Your task to perform on an android device: Open Yahoo.com Image 0: 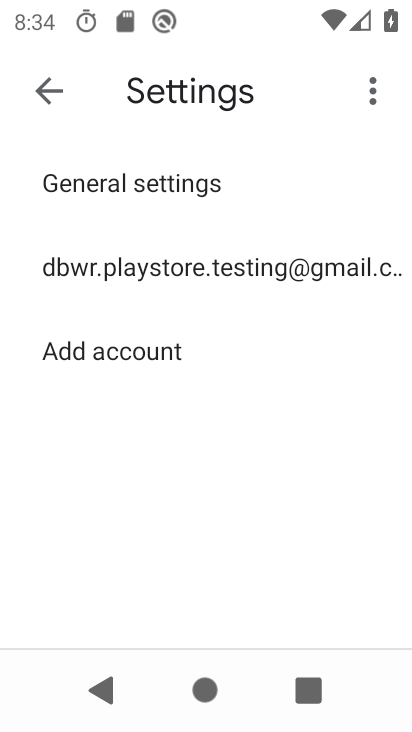
Step 0: press home button
Your task to perform on an android device: Open Yahoo.com Image 1: 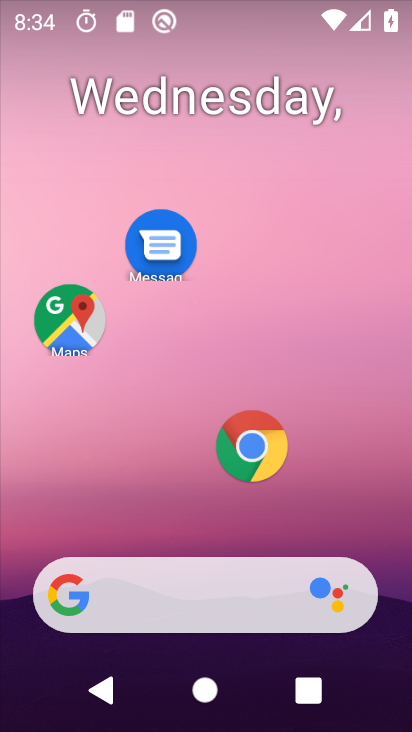
Step 1: click (252, 439)
Your task to perform on an android device: Open Yahoo.com Image 2: 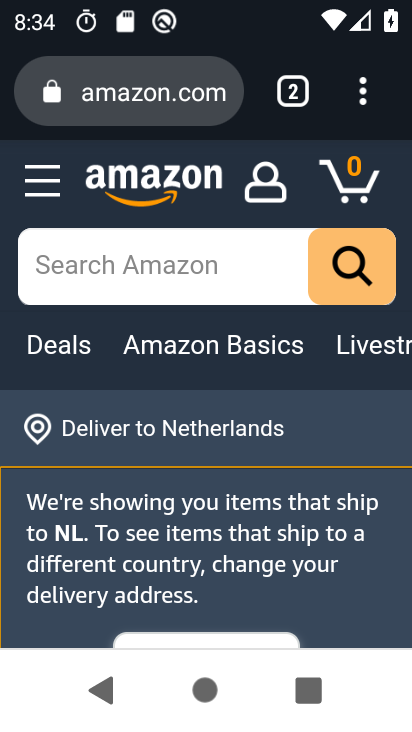
Step 2: click (292, 90)
Your task to perform on an android device: Open Yahoo.com Image 3: 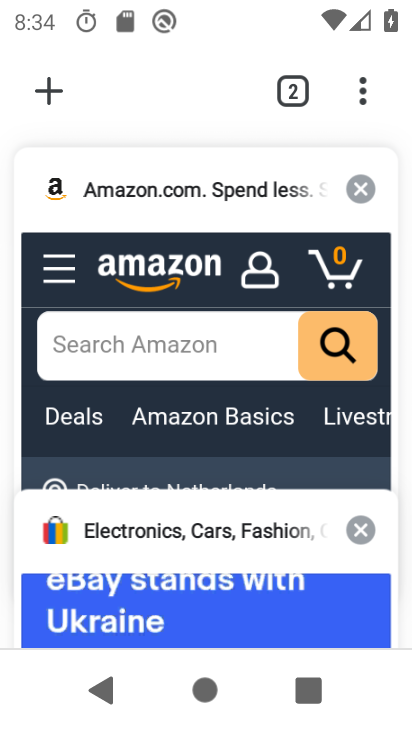
Step 3: click (359, 183)
Your task to perform on an android device: Open Yahoo.com Image 4: 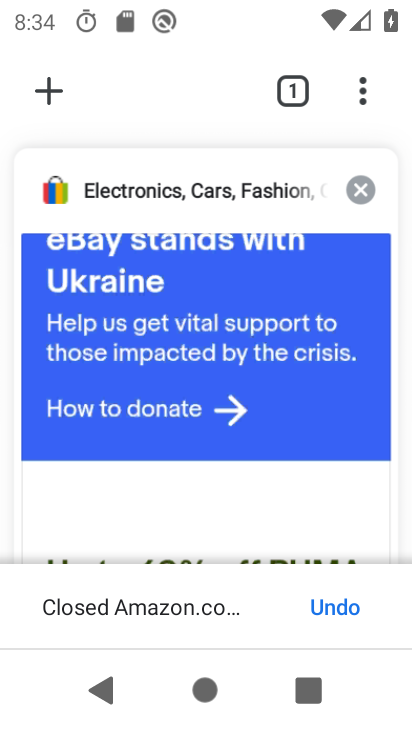
Step 4: click (359, 183)
Your task to perform on an android device: Open Yahoo.com Image 5: 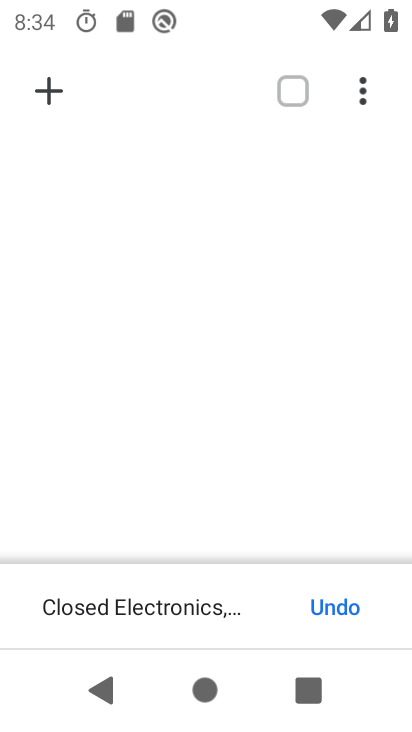
Step 5: click (54, 94)
Your task to perform on an android device: Open Yahoo.com Image 6: 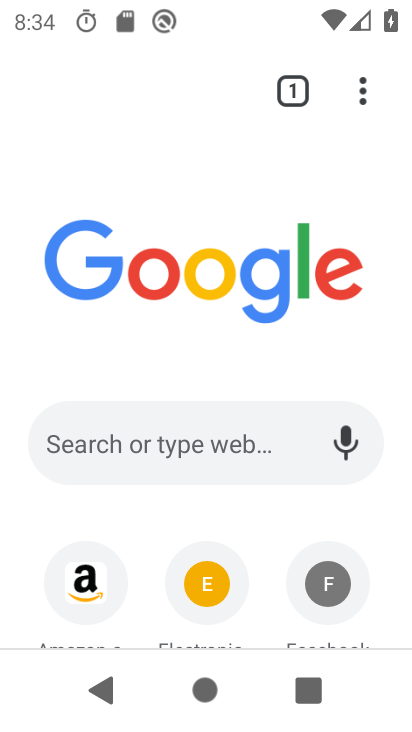
Step 6: drag from (265, 525) to (261, 59)
Your task to perform on an android device: Open Yahoo.com Image 7: 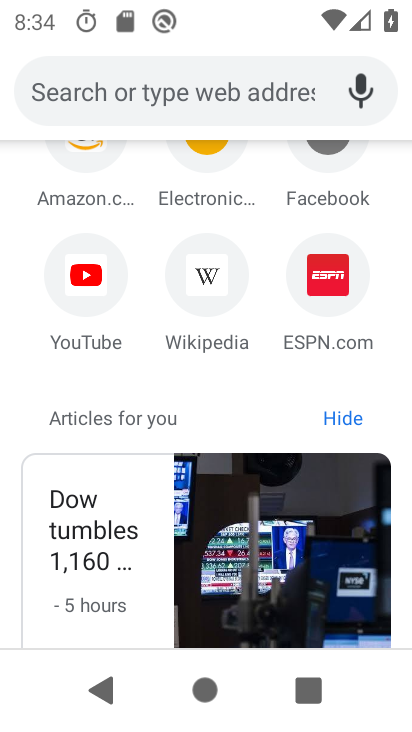
Step 7: click (83, 268)
Your task to perform on an android device: Open Yahoo.com Image 8: 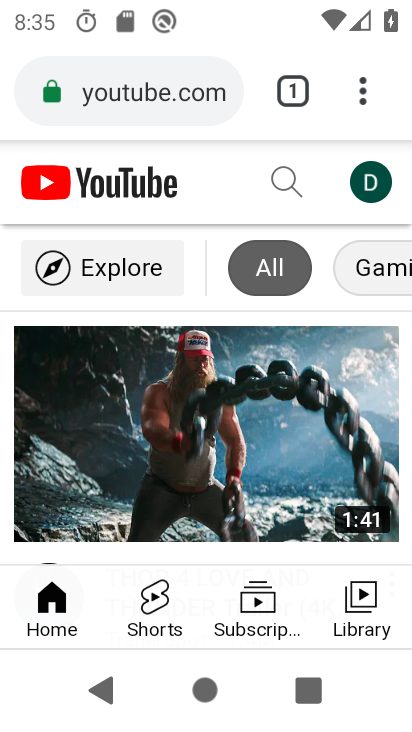
Step 8: drag from (204, 547) to (214, 132)
Your task to perform on an android device: Open Yahoo.com Image 9: 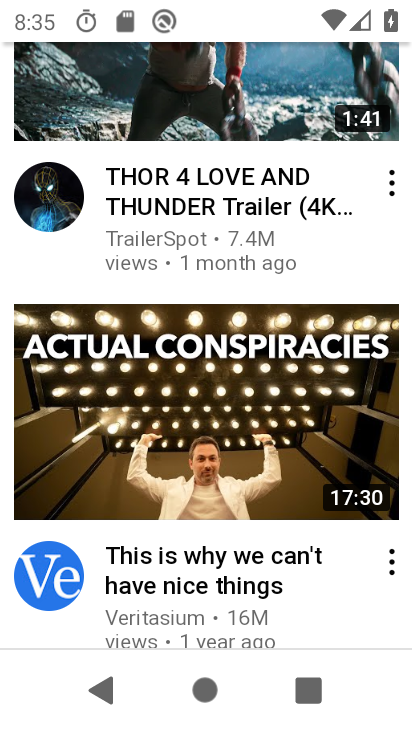
Step 9: press home button
Your task to perform on an android device: Open Yahoo.com Image 10: 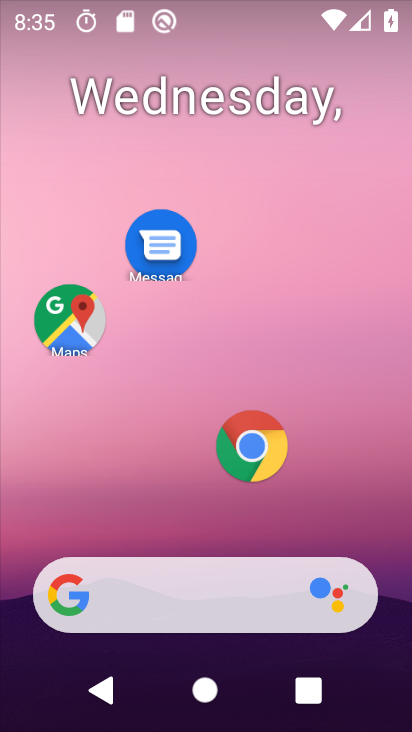
Step 10: click (251, 442)
Your task to perform on an android device: Open Yahoo.com Image 11: 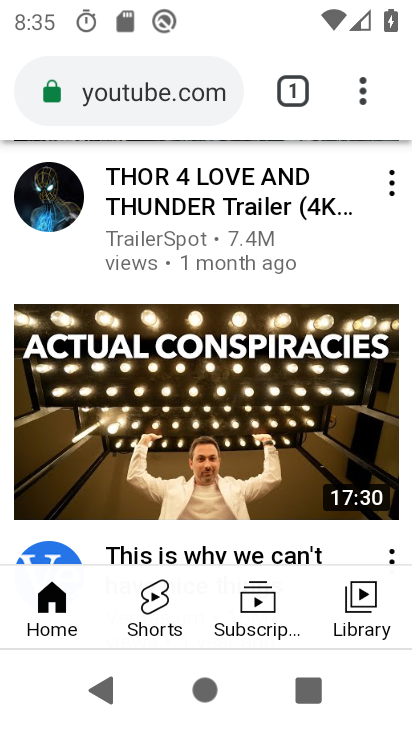
Step 11: click (286, 90)
Your task to perform on an android device: Open Yahoo.com Image 12: 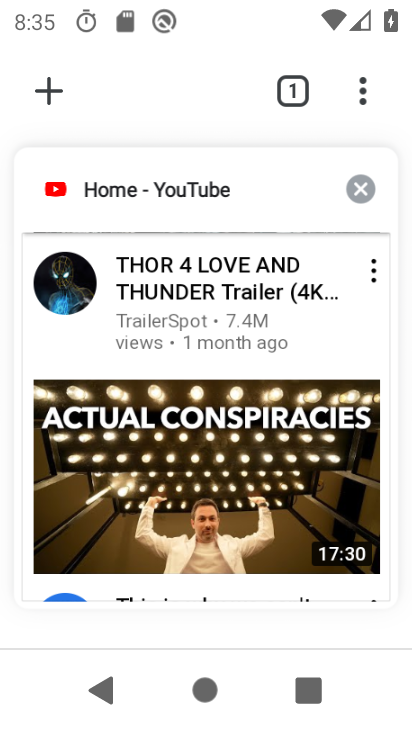
Step 12: click (362, 182)
Your task to perform on an android device: Open Yahoo.com Image 13: 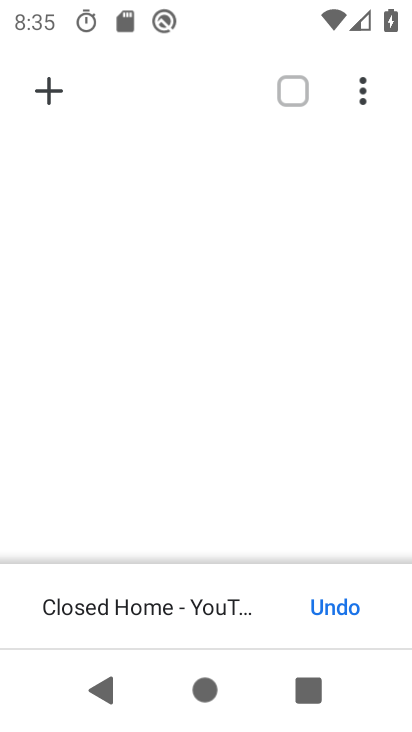
Step 13: click (53, 99)
Your task to perform on an android device: Open Yahoo.com Image 14: 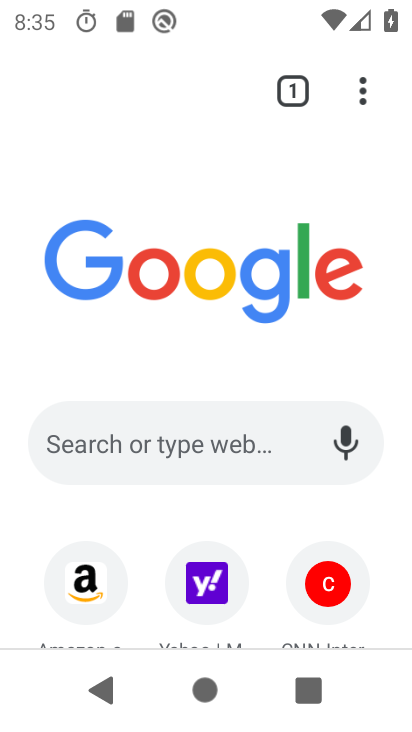
Step 14: click (211, 587)
Your task to perform on an android device: Open Yahoo.com Image 15: 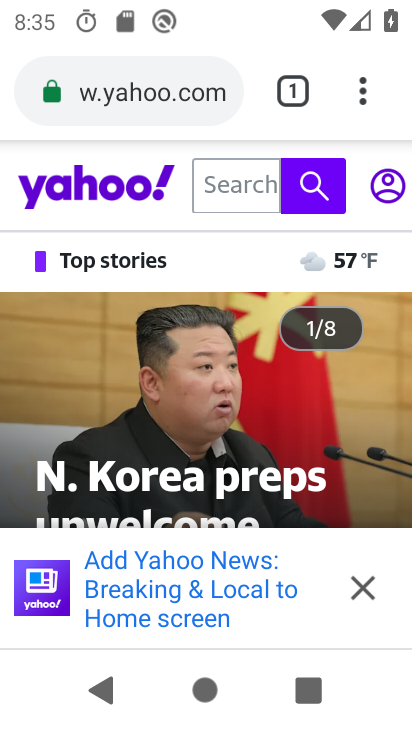
Step 15: drag from (200, 615) to (212, 130)
Your task to perform on an android device: Open Yahoo.com Image 16: 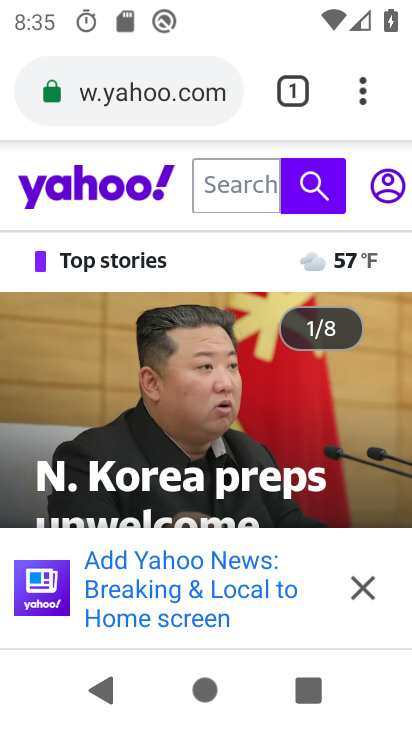
Step 16: click (366, 581)
Your task to perform on an android device: Open Yahoo.com Image 17: 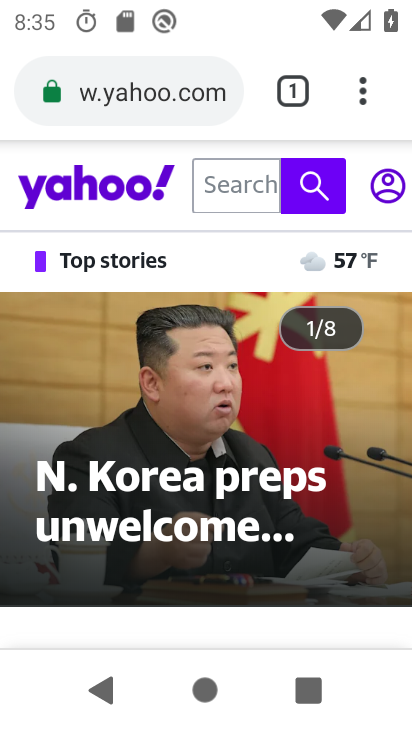
Step 17: task complete